Your task to perform on an android device: View the shopping cart on walmart.com. Add "logitech g pro" to the cart on walmart.com Image 0: 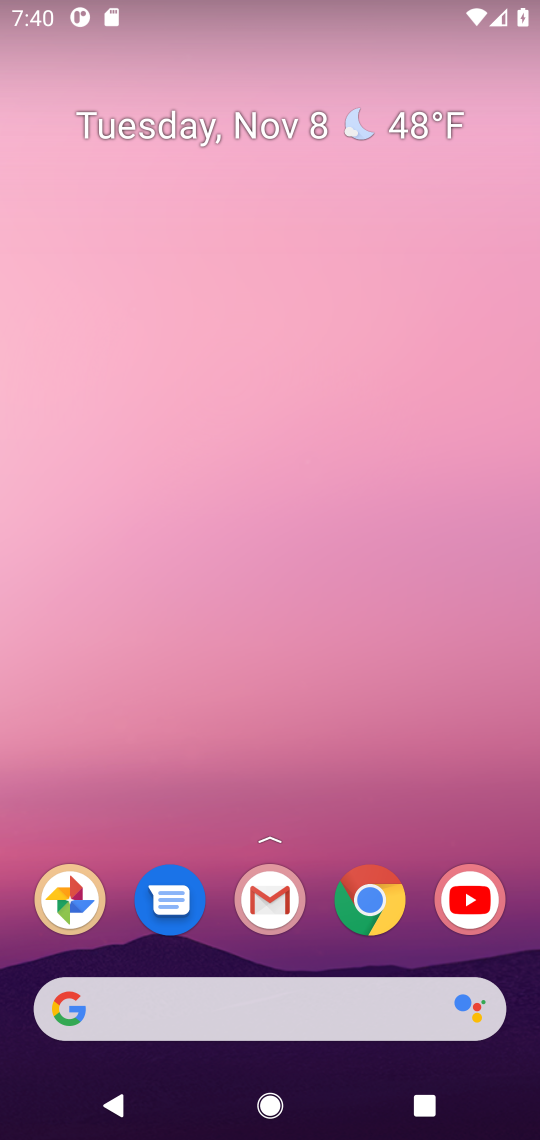
Step 0: drag from (125, 945) to (239, 192)
Your task to perform on an android device: View the shopping cart on walmart.com. Add "logitech g pro" to the cart on walmart.com Image 1: 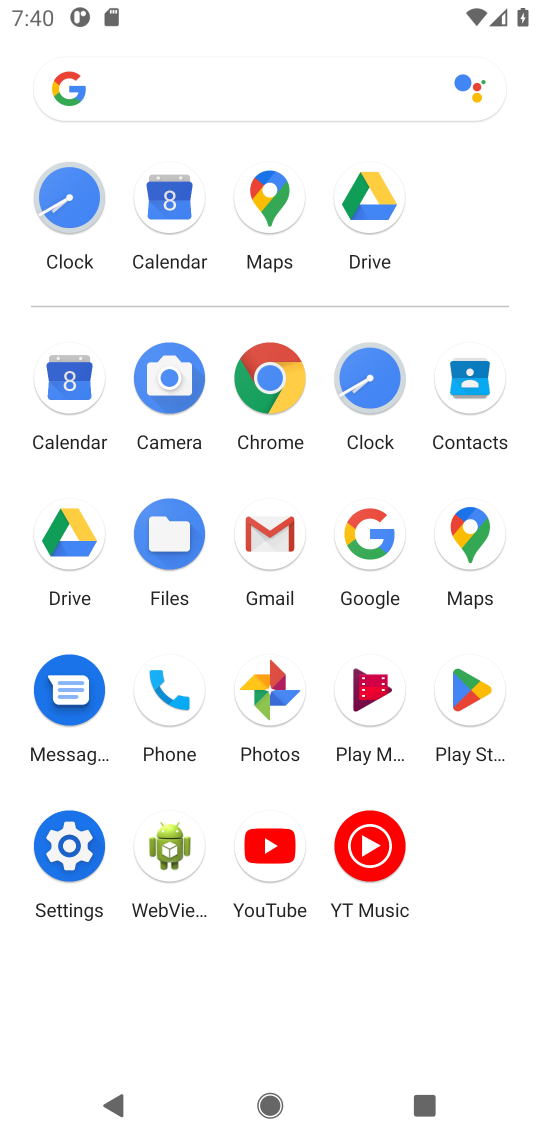
Step 1: click (368, 536)
Your task to perform on an android device: View the shopping cart on walmart.com. Add "logitech g pro" to the cart on walmart.com Image 2: 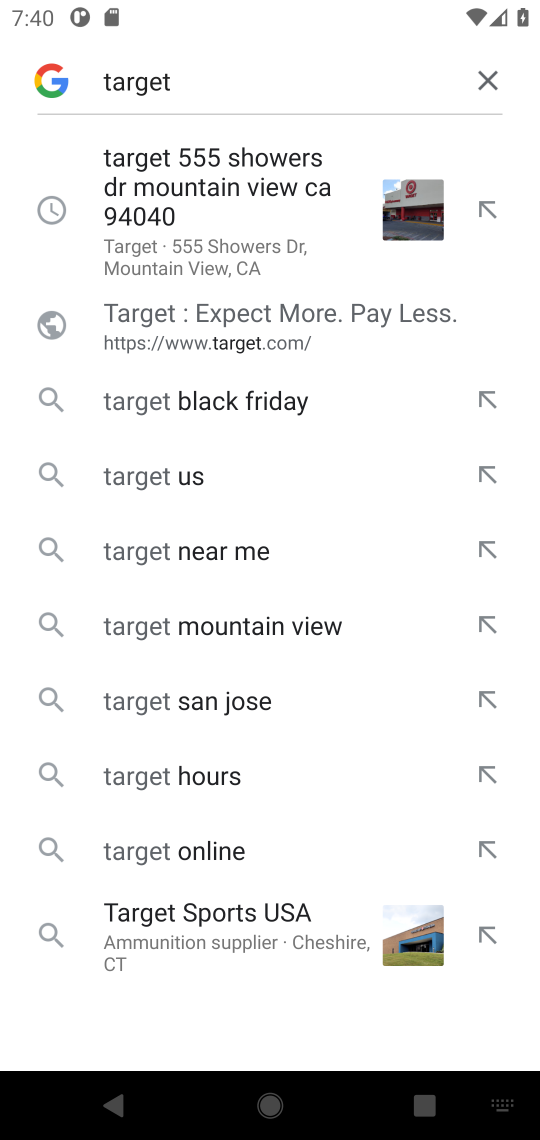
Step 2: click (481, 84)
Your task to perform on an android device: View the shopping cart on walmart.com. Add "logitech g pro" to the cart on walmart.com Image 3: 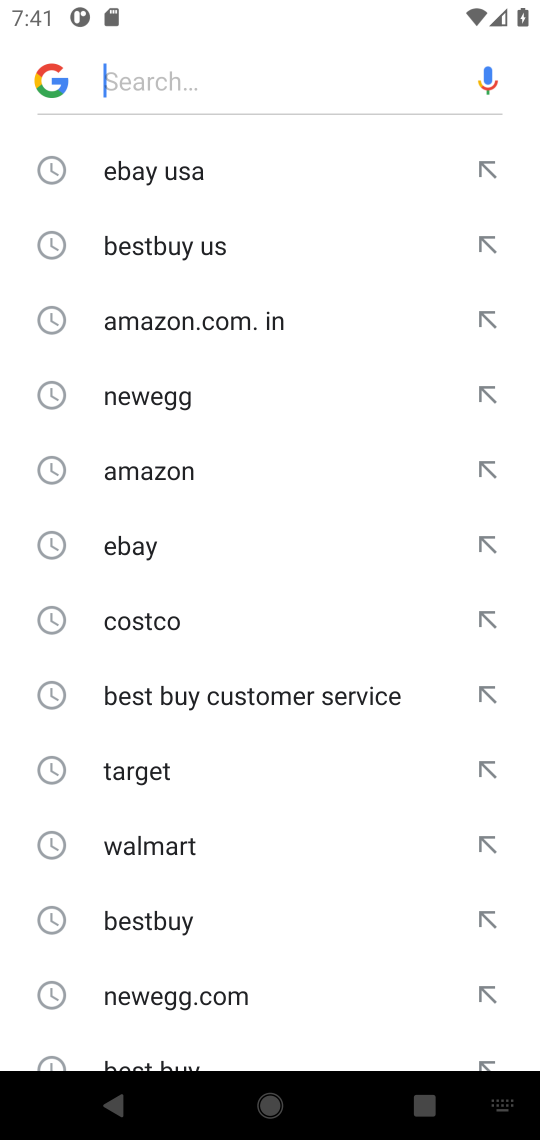
Step 3: click (174, 72)
Your task to perform on an android device: View the shopping cart on walmart.com. Add "logitech g pro" to the cart on walmart.com Image 4: 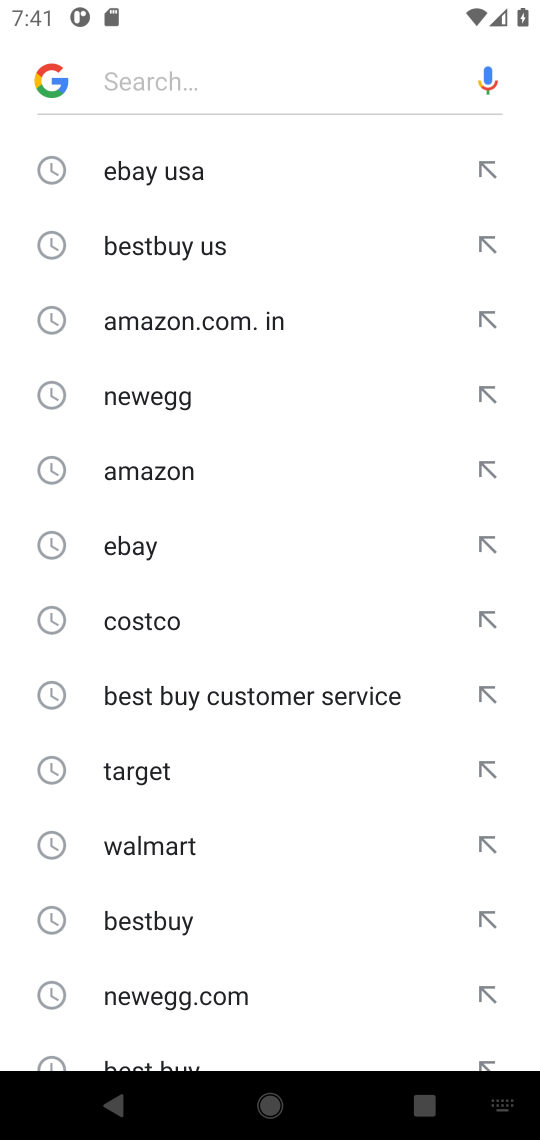
Step 4: type "walmart "
Your task to perform on an android device: View the shopping cart on walmart.com. Add "logitech g pro" to the cart on walmart.com Image 5: 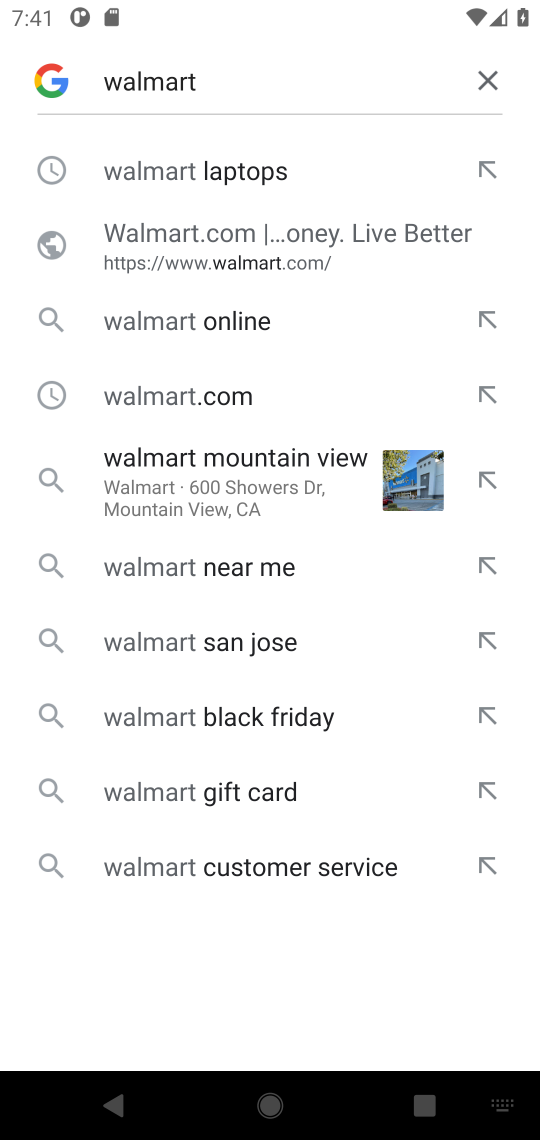
Step 5: click (188, 219)
Your task to perform on an android device: View the shopping cart on walmart.com. Add "logitech g pro" to the cart on walmart.com Image 6: 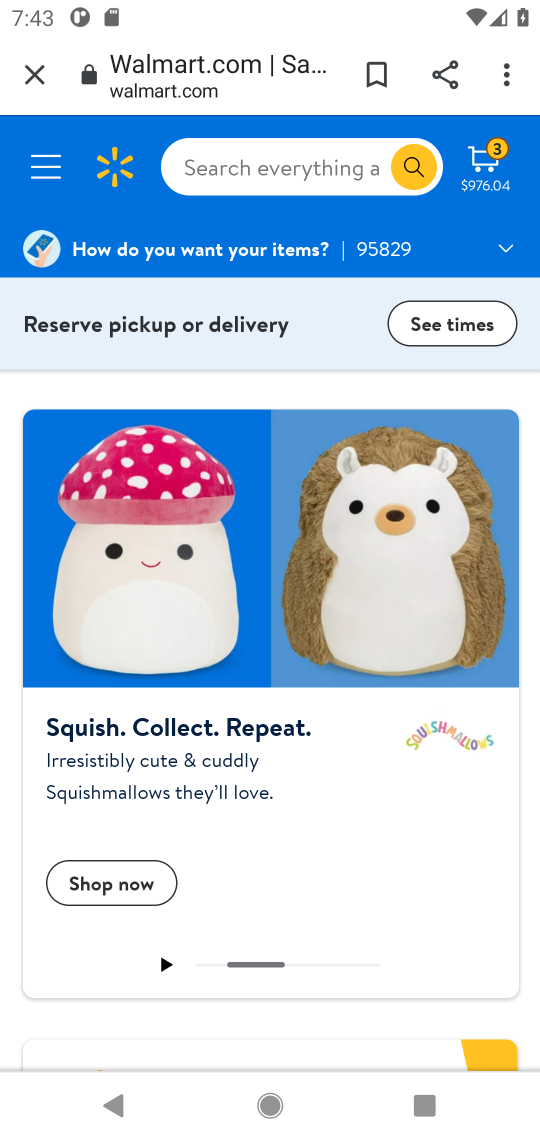
Step 6: click (315, 139)
Your task to perform on an android device: View the shopping cart on walmart.com. Add "logitech g pro" to the cart on walmart.com Image 7: 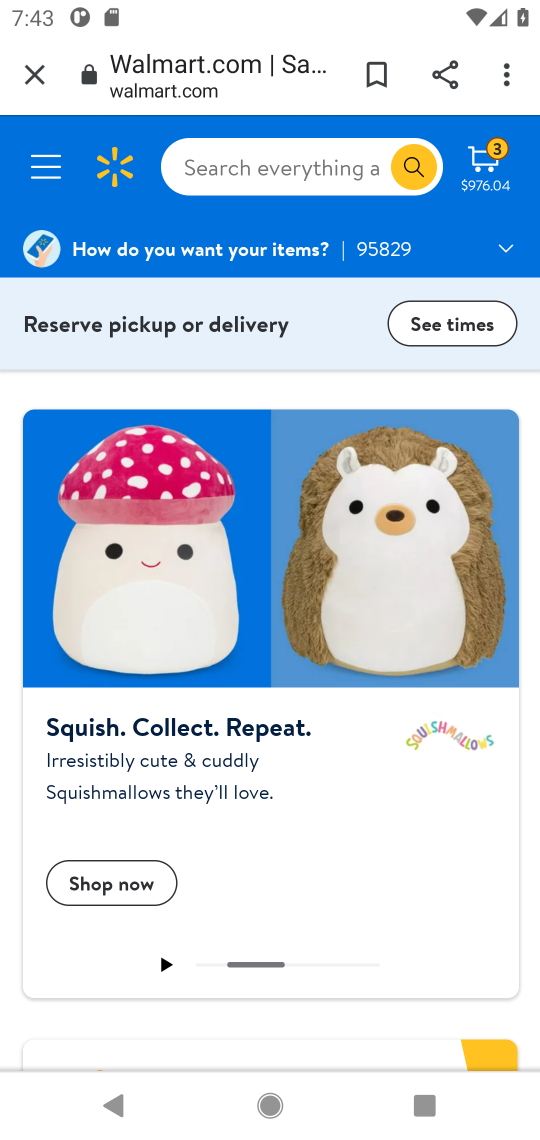
Step 7: type "logitech g pro "
Your task to perform on an android device: View the shopping cart on walmart.com. Add "logitech g pro" to the cart on walmart.com Image 8: 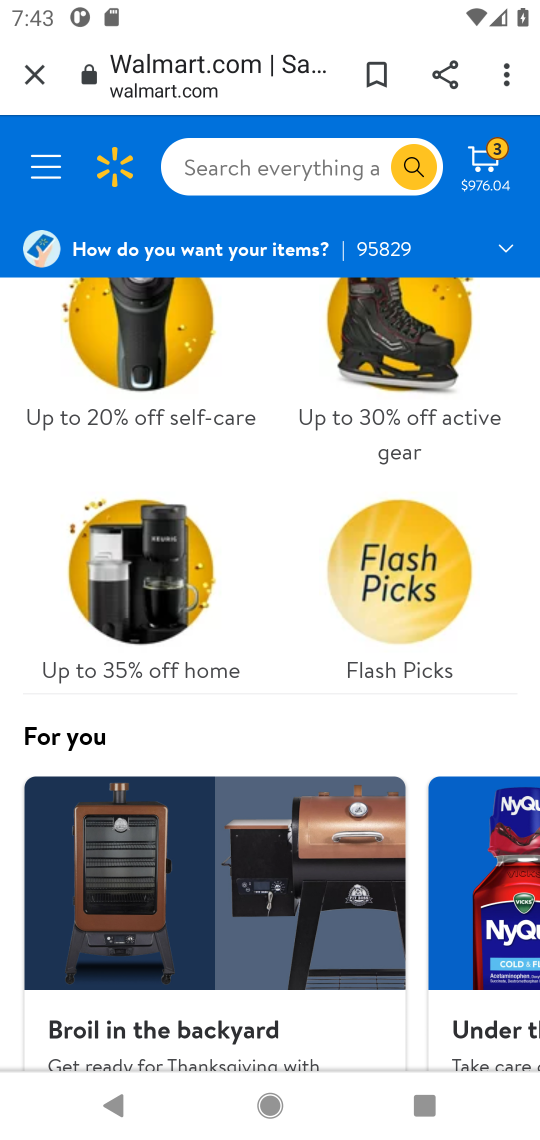
Step 8: click (316, 159)
Your task to perform on an android device: View the shopping cart on walmart.com. Add "logitech g pro" to the cart on walmart.com Image 9: 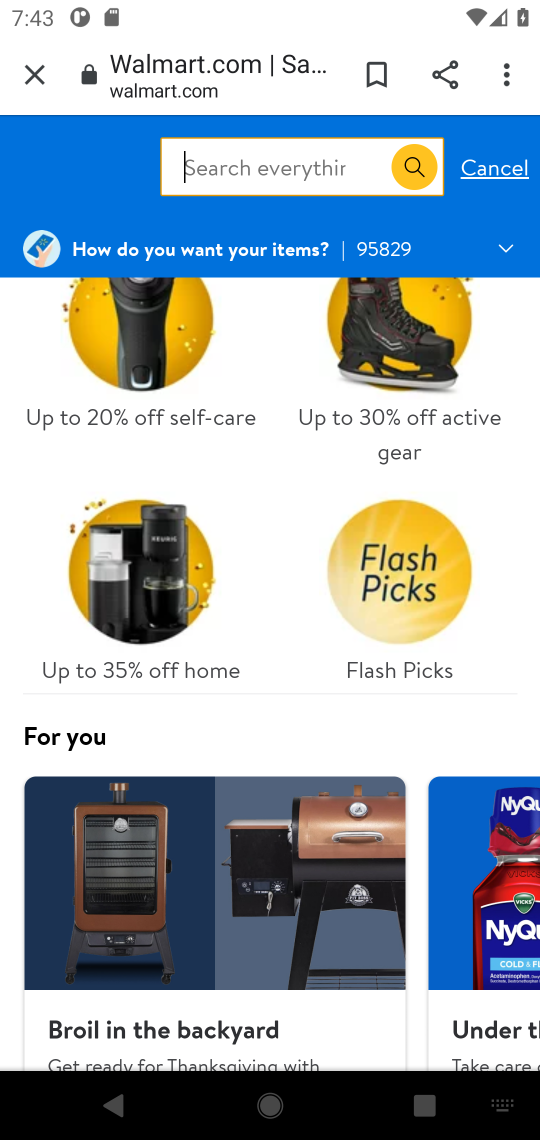
Step 9: click (257, 161)
Your task to perform on an android device: View the shopping cart on walmart.com. Add "logitech g pro" to the cart on walmart.com Image 10: 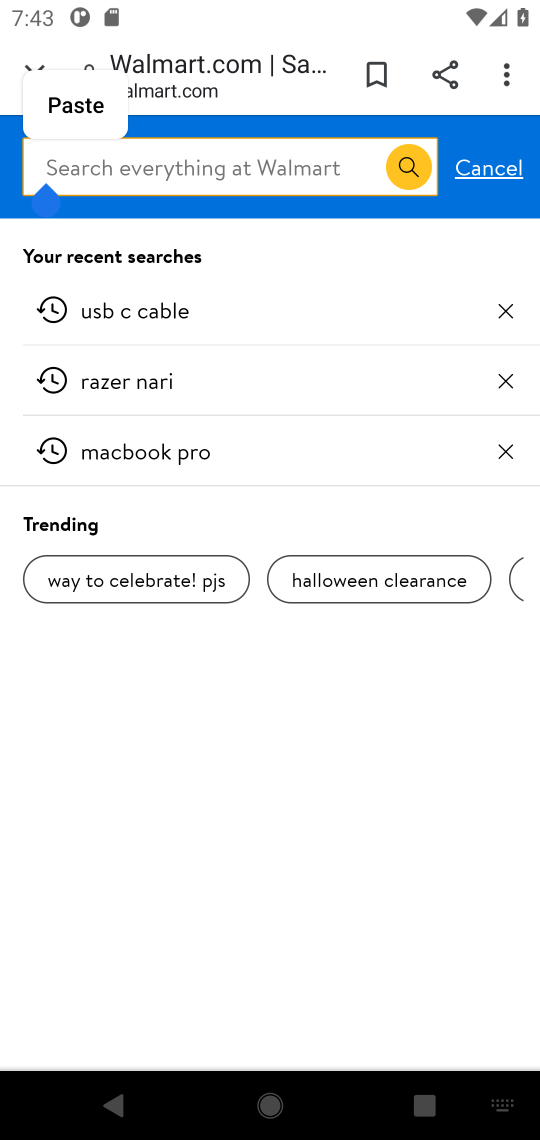
Step 10: type "logitech g pro "
Your task to perform on an android device: View the shopping cart on walmart.com. Add "logitech g pro" to the cart on walmart.com Image 11: 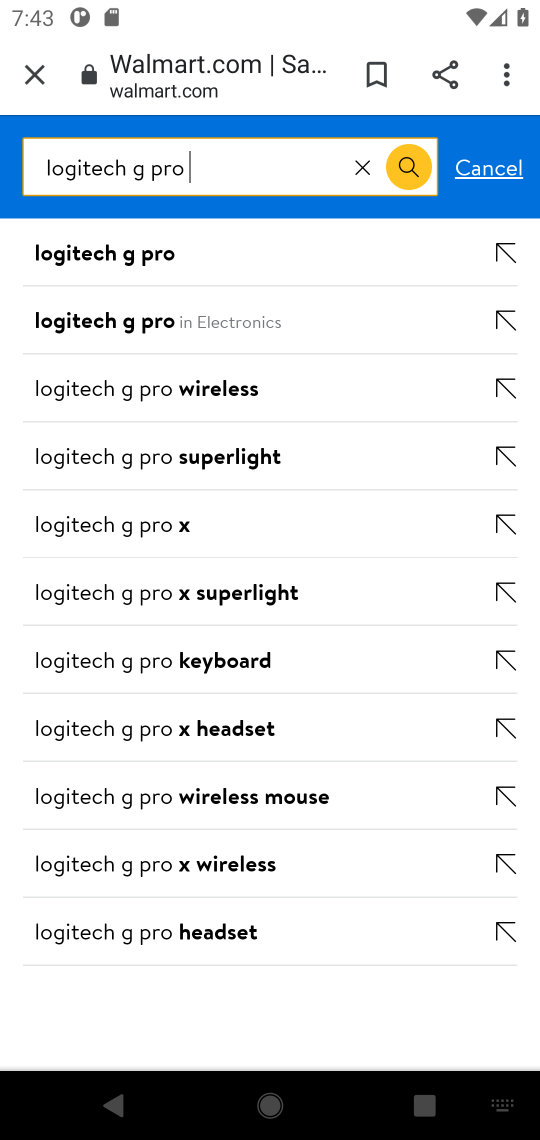
Step 11: click (234, 251)
Your task to perform on an android device: View the shopping cart on walmart.com. Add "logitech g pro" to the cart on walmart.com Image 12: 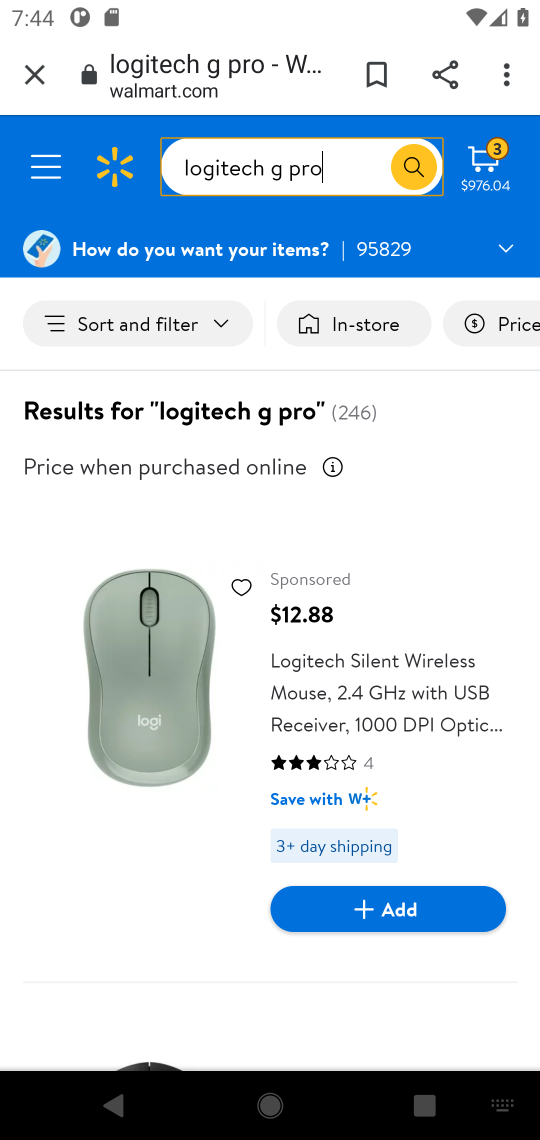
Step 12: click (362, 902)
Your task to perform on an android device: View the shopping cart on walmart.com. Add "logitech g pro" to the cart on walmart.com Image 13: 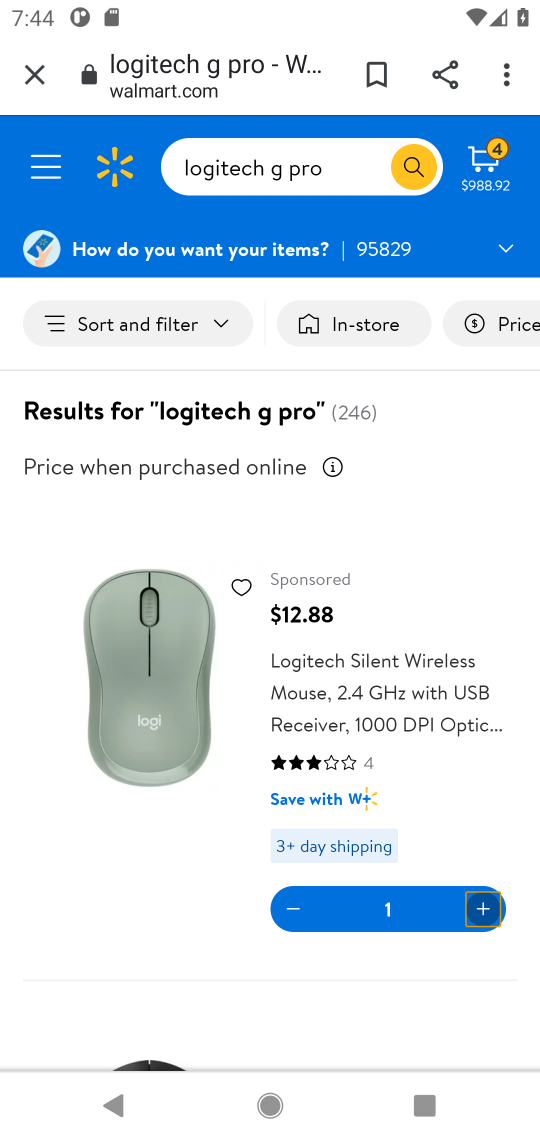
Step 13: task complete